Your task to perform on an android device: turn smart compose on in the gmail app Image 0: 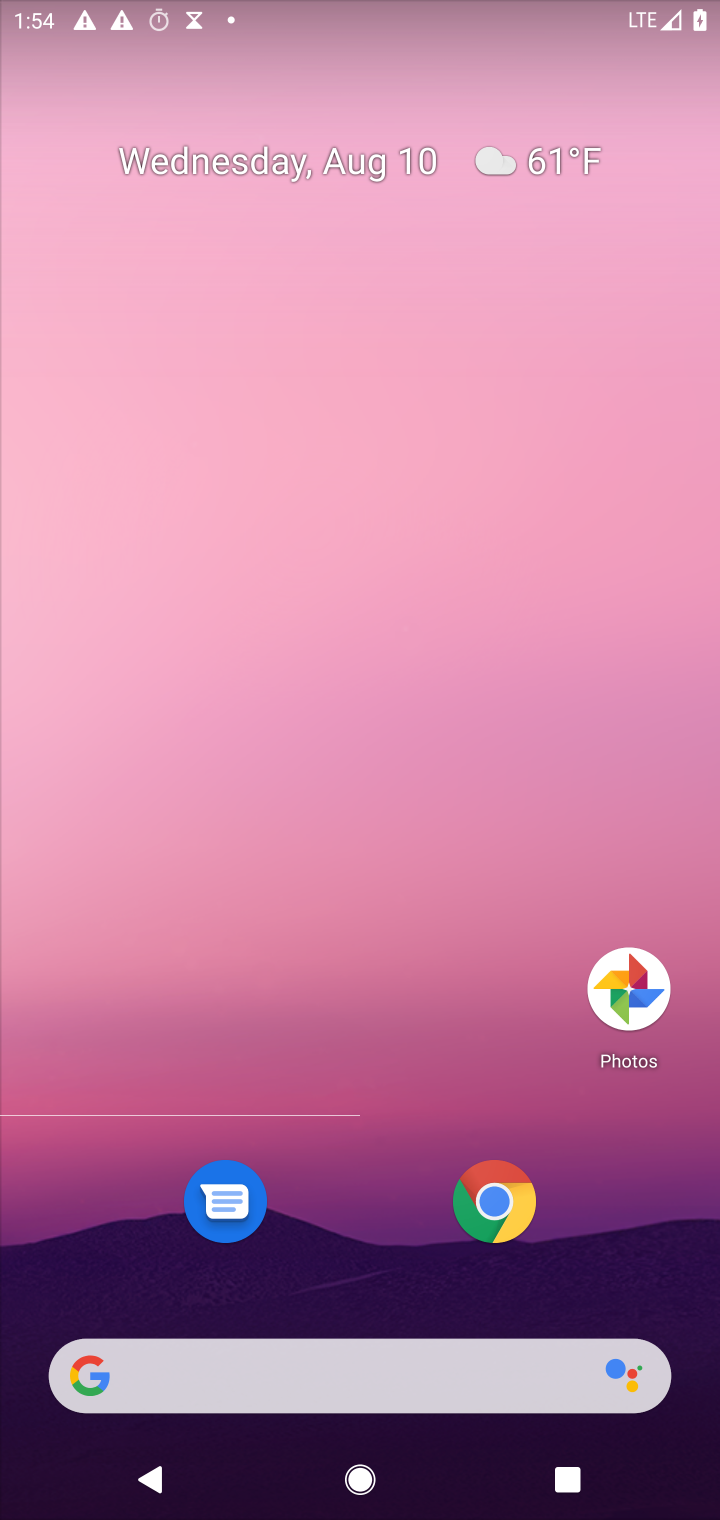
Step 0: press home button
Your task to perform on an android device: turn smart compose on in the gmail app Image 1: 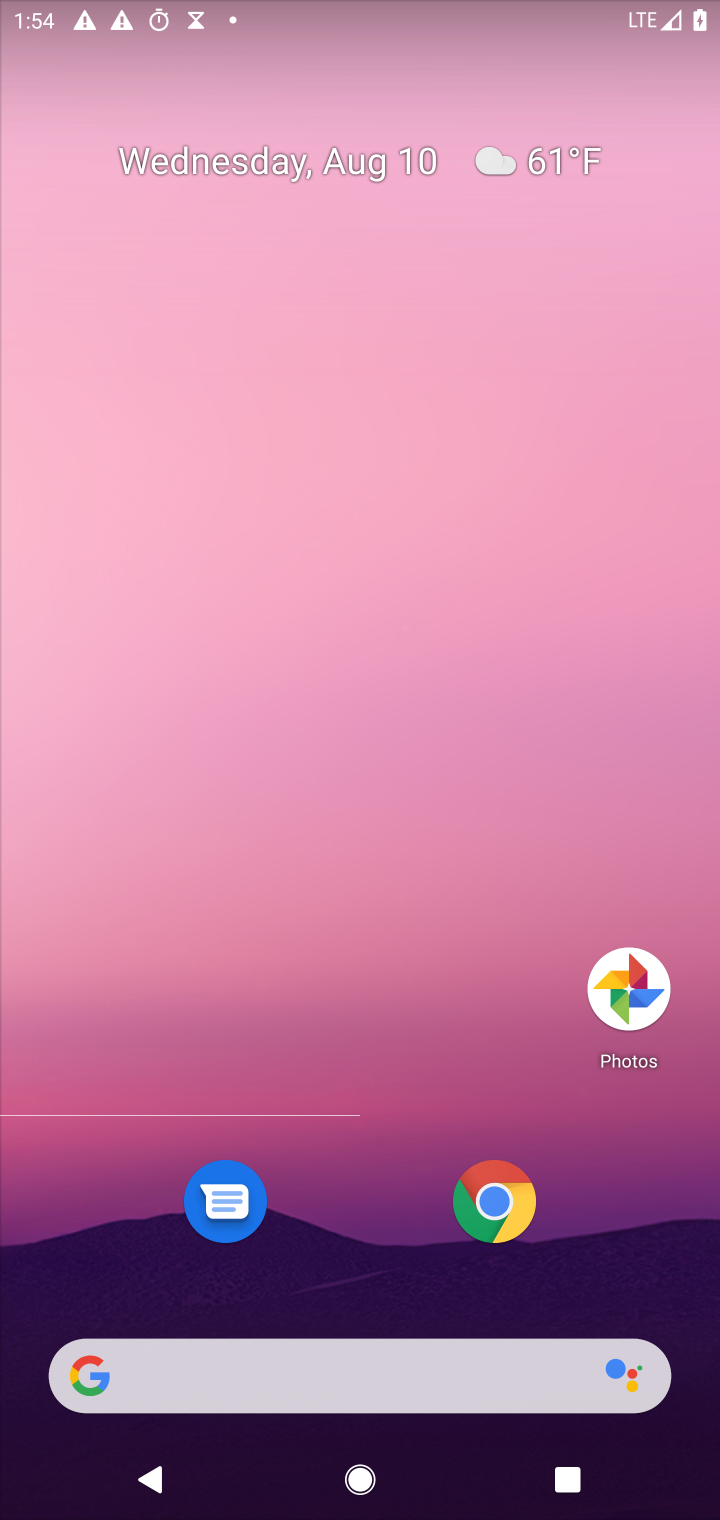
Step 1: drag from (370, 1309) to (418, 46)
Your task to perform on an android device: turn smart compose on in the gmail app Image 2: 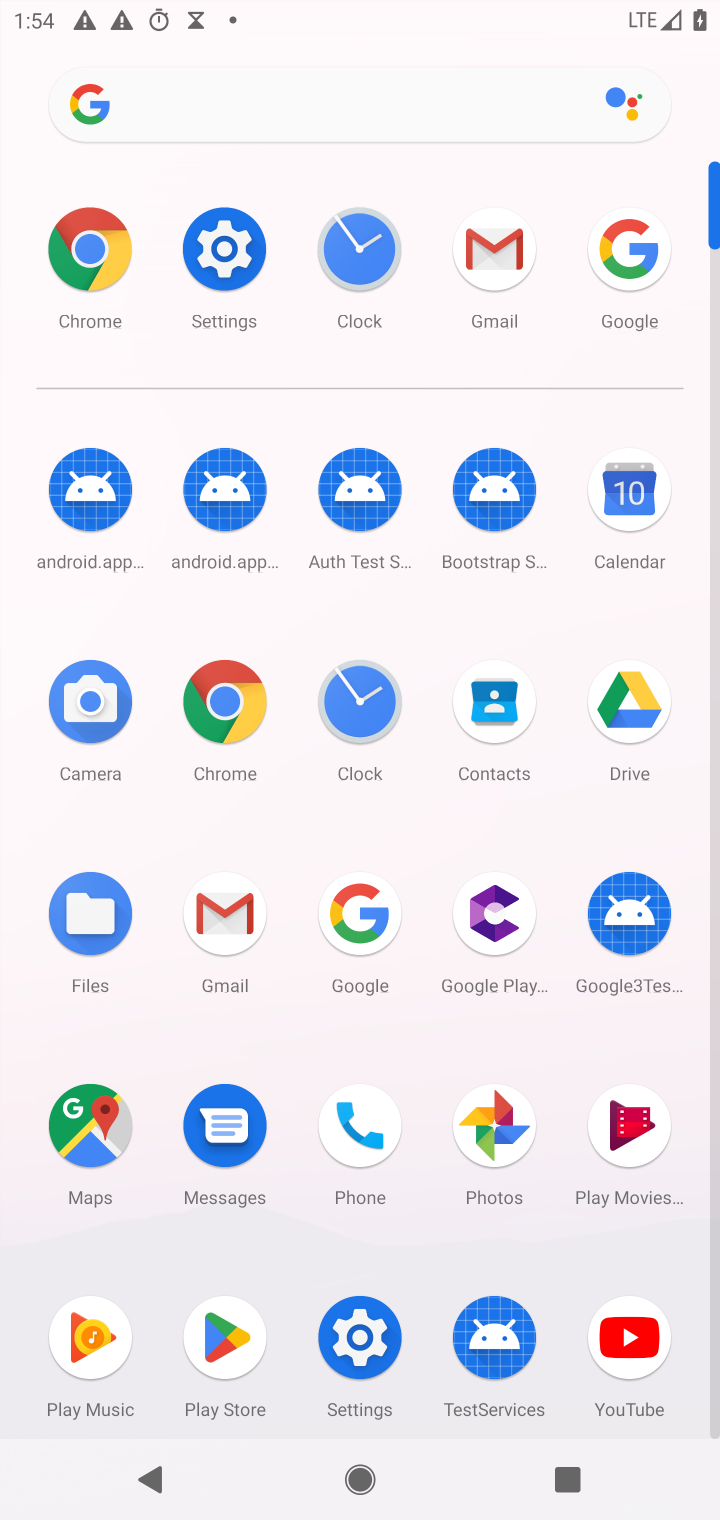
Step 2: click (480, 272)
Your task to perform on an android device: turn smart compose on in the gmail app Image 3: 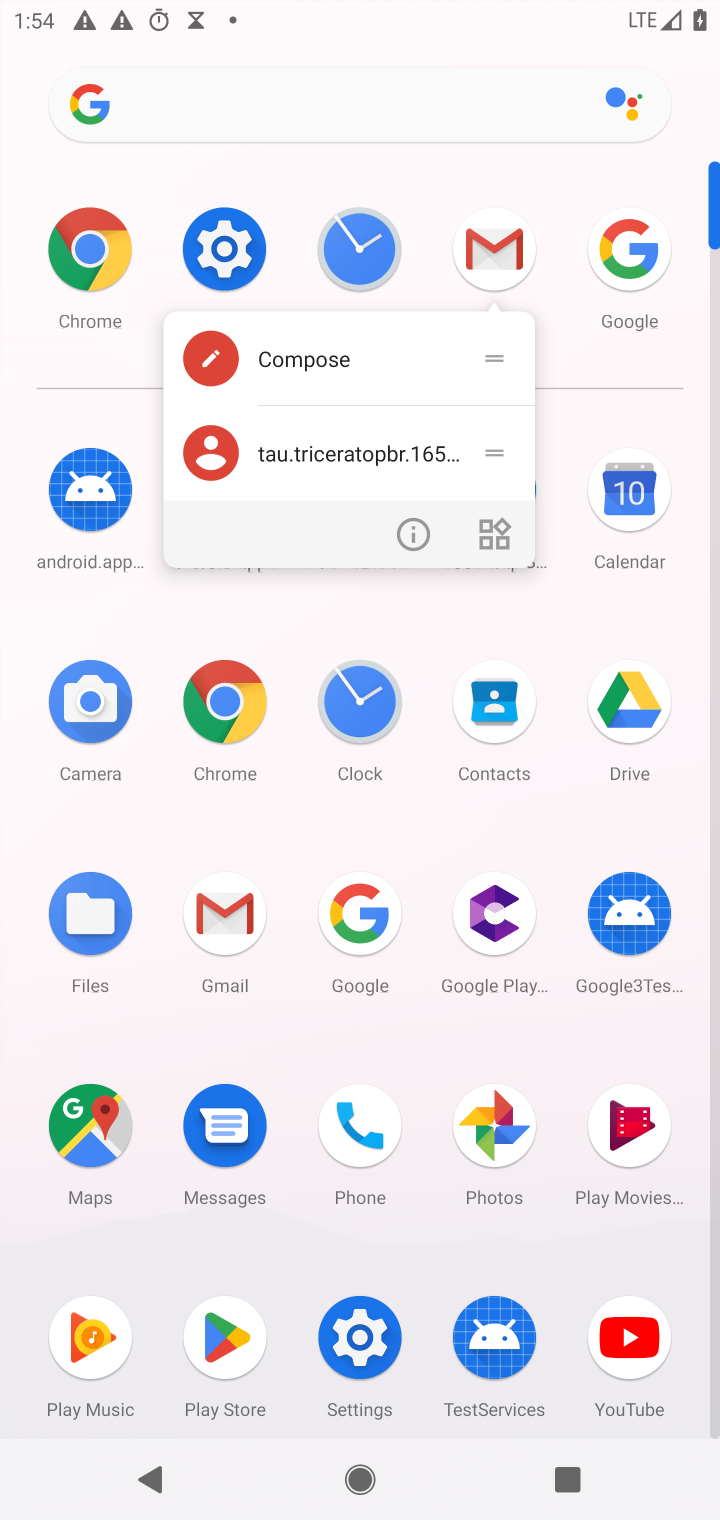
Step 3: click (480, 272)
Your task to perform on an android device: turn smart compose on in the gmail app Image 4: 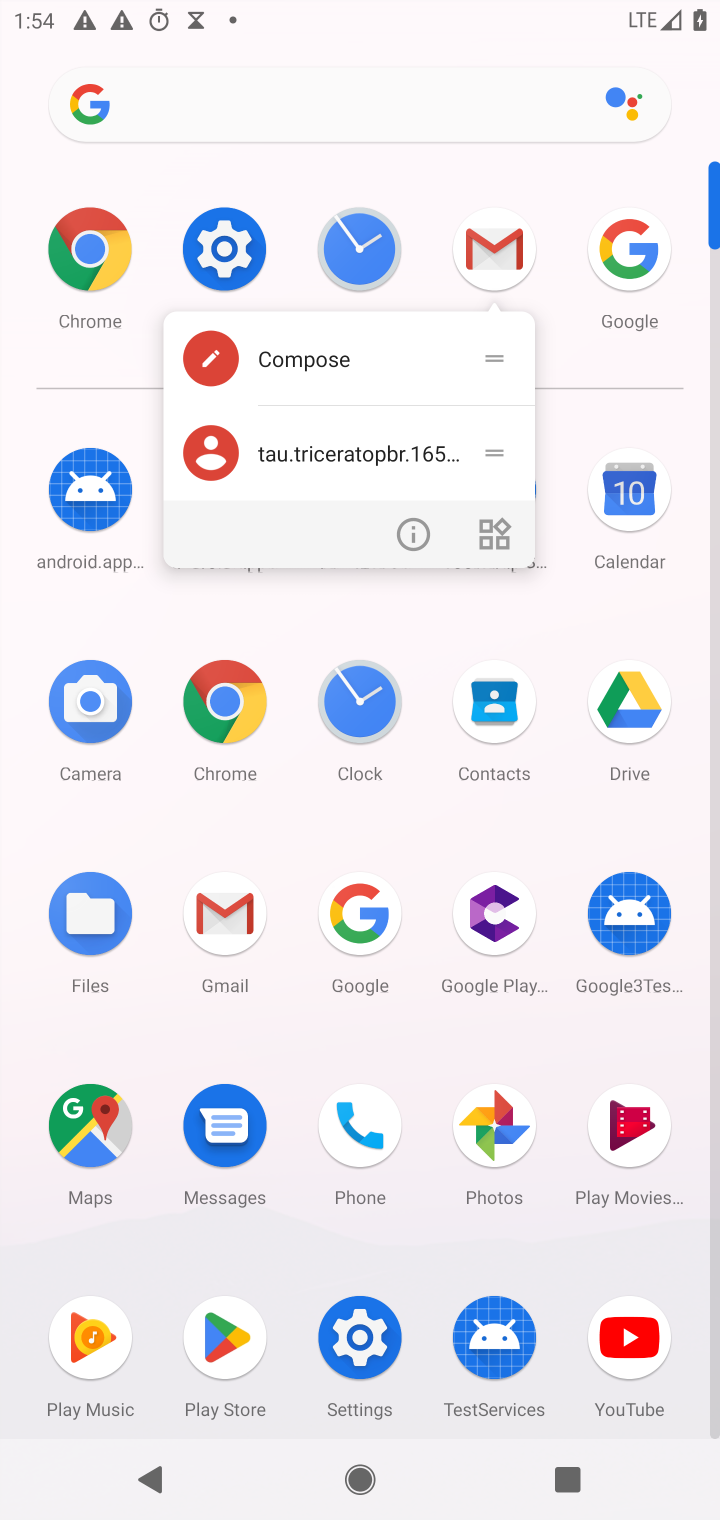
Step 4: click (498, 247)
Your task to perform on an android device: turn smart compose on in the gmail app Image 5: 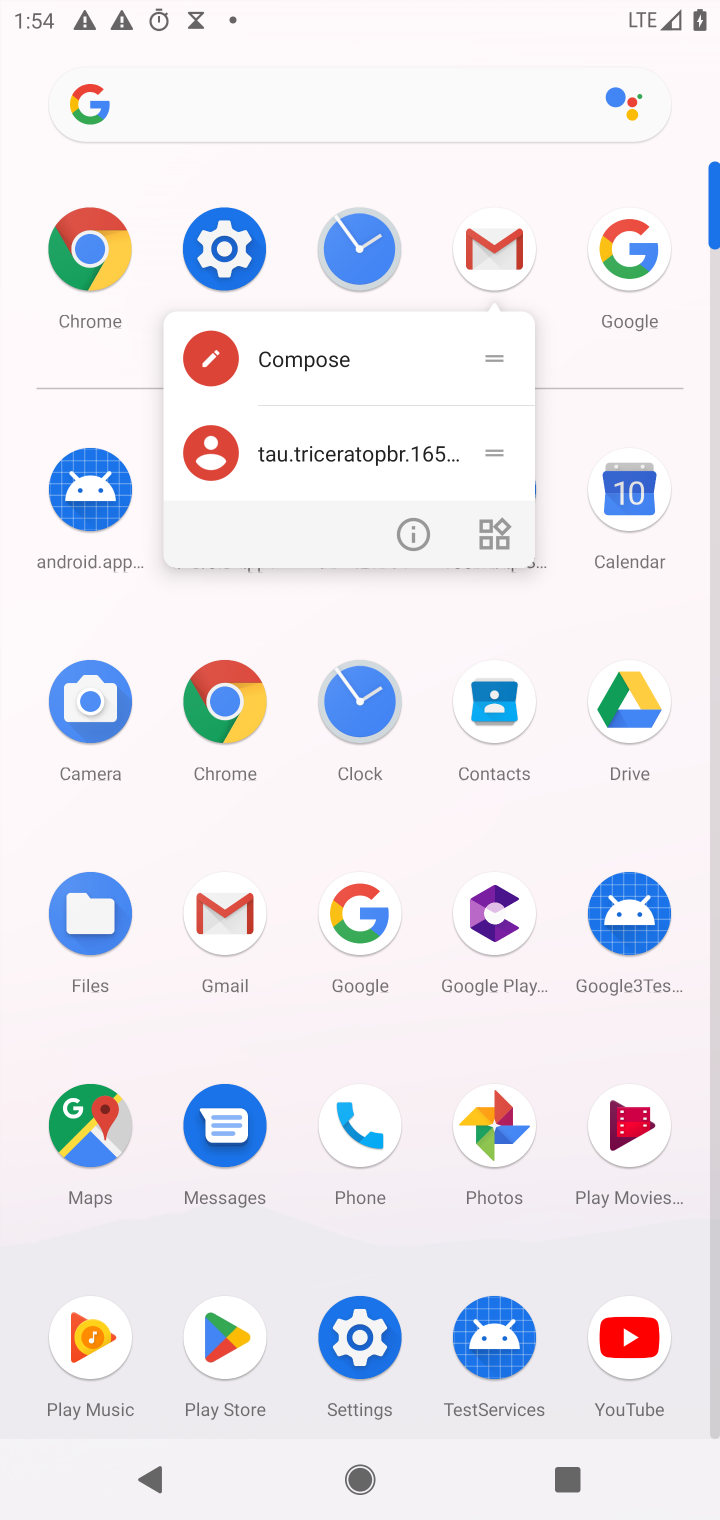
Step 5: click (498, 247)
Your task to perform on an android device: turn smart compose on in the gmail app Image 6: 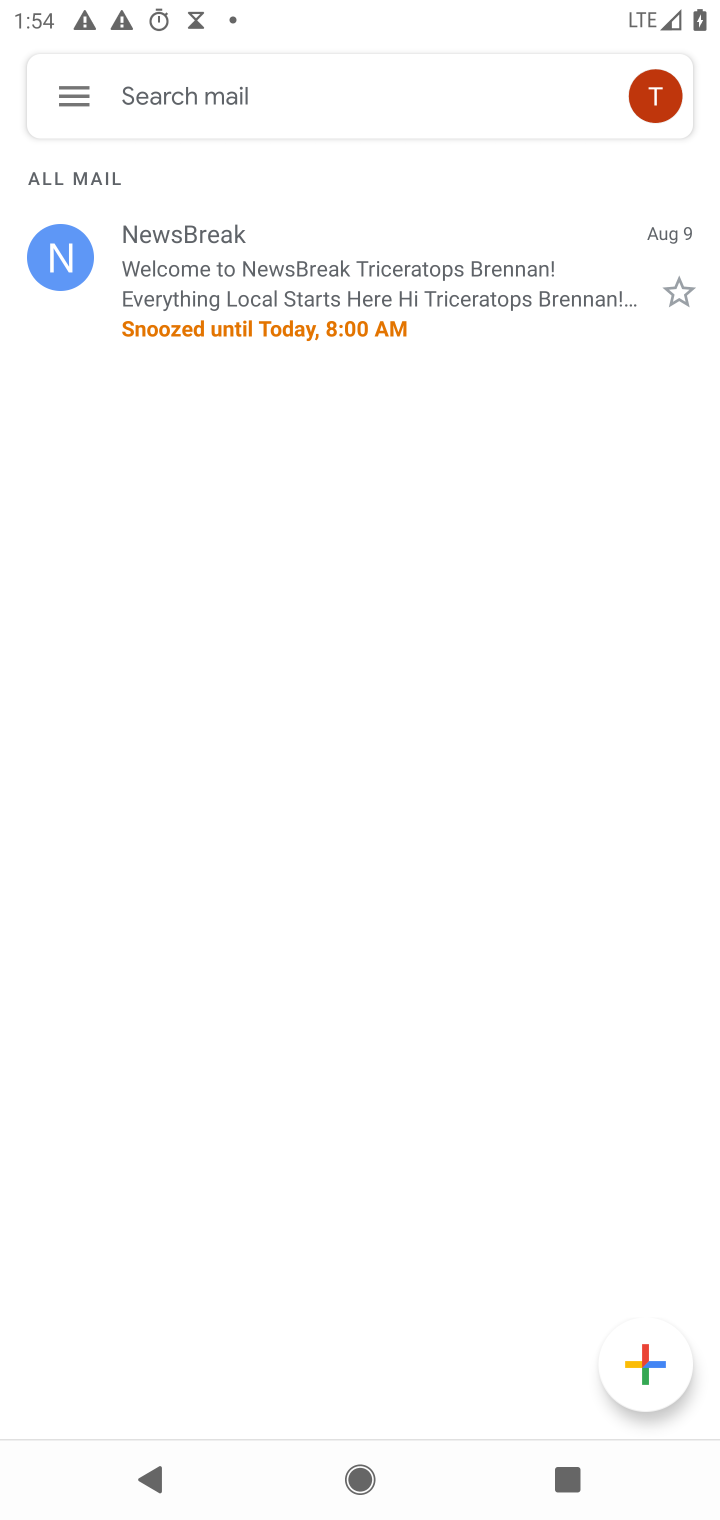
Step 6: click (63, 102)
Your task to perform on an android device: turn smart compose on in the gmail app Image 7: 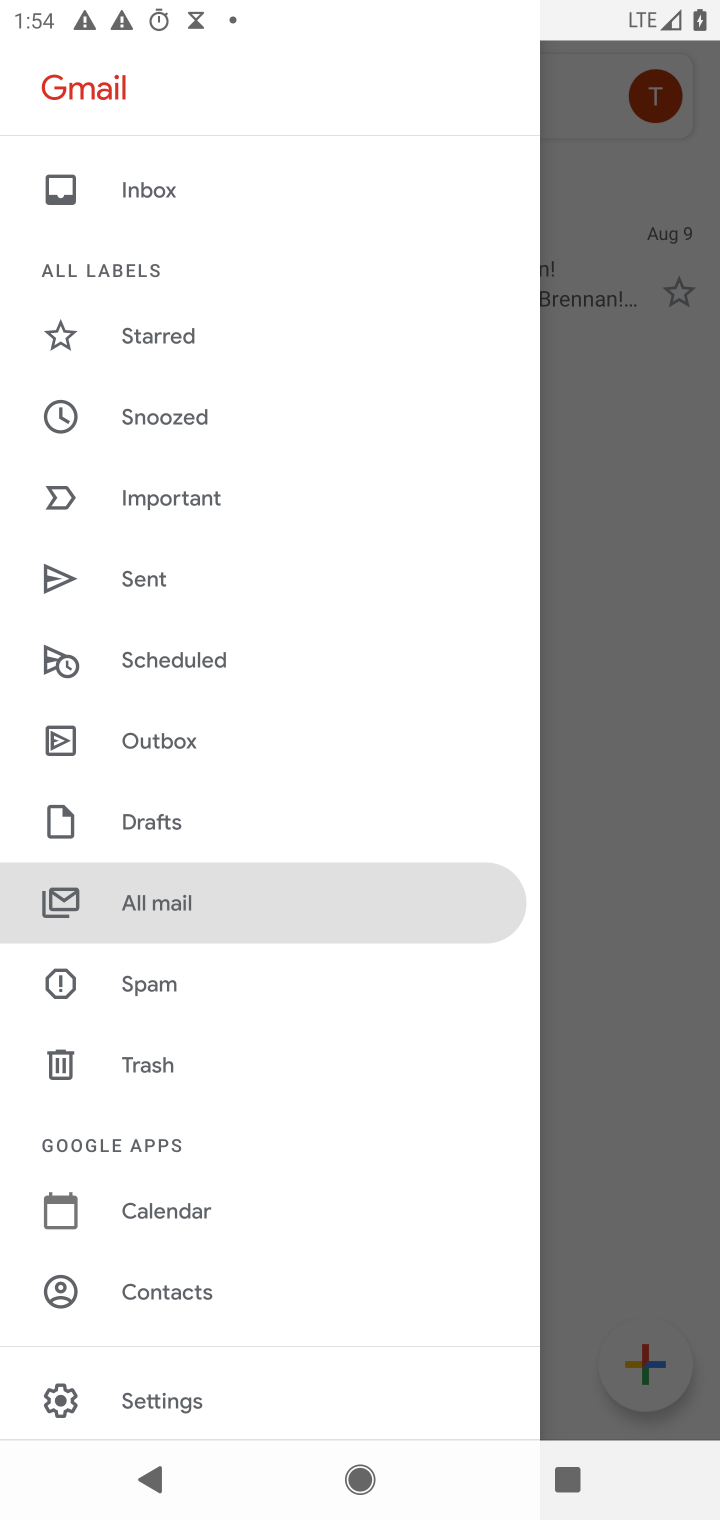
Step 7: click (194, 1410)
Your task to perform on an android device: turn smart compose on in the gmail app Image 8: 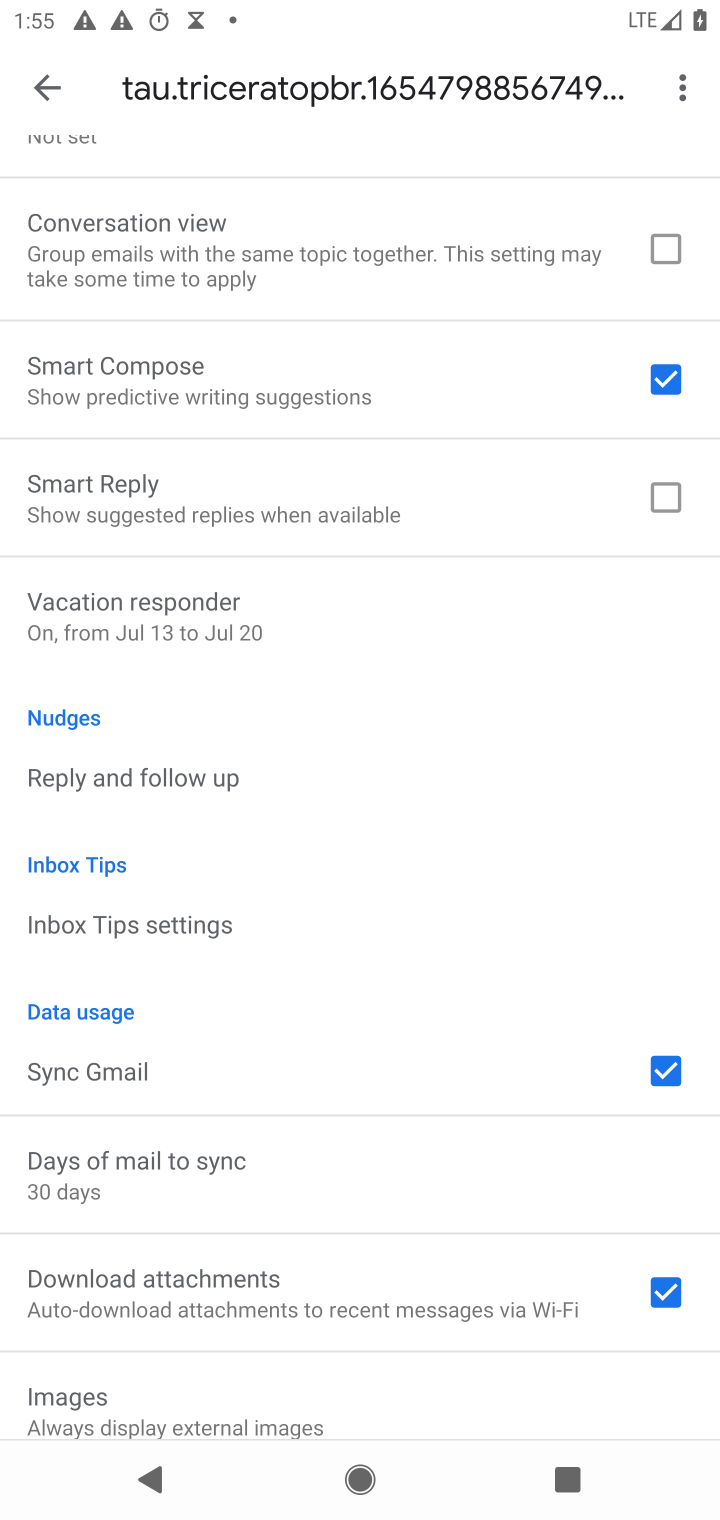
Step 8: task complete